Your task to perform on an android device: Go to wifi settings Image 0: 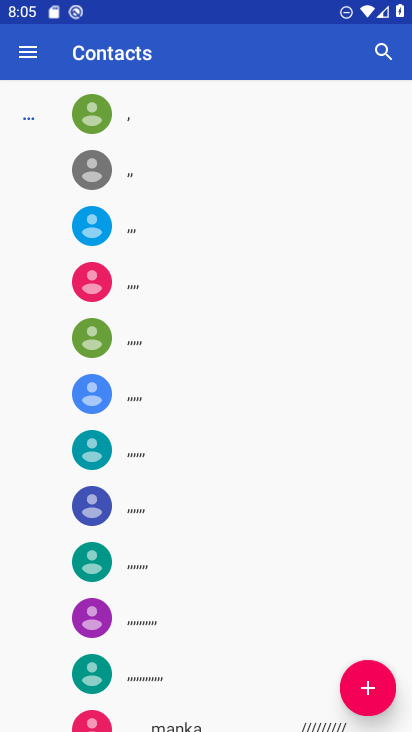
Step 0: press home button
Your task to perform on an android device: Go to wifi settings Image 1: 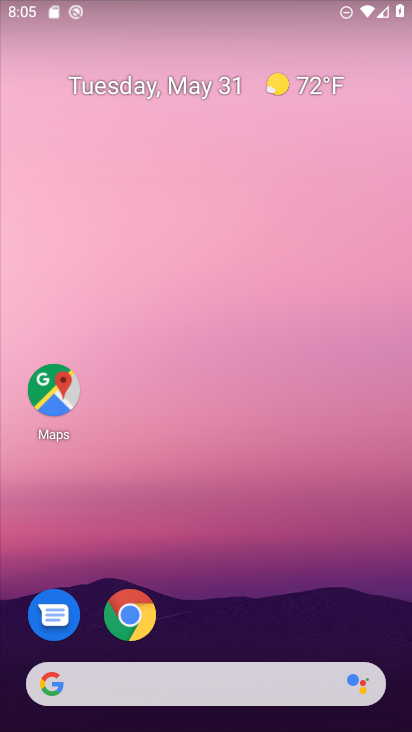
Step 1: drag from (226, 625) to (223, 0)
Your task to perform on an android device: Go to wifi settings Image 2: 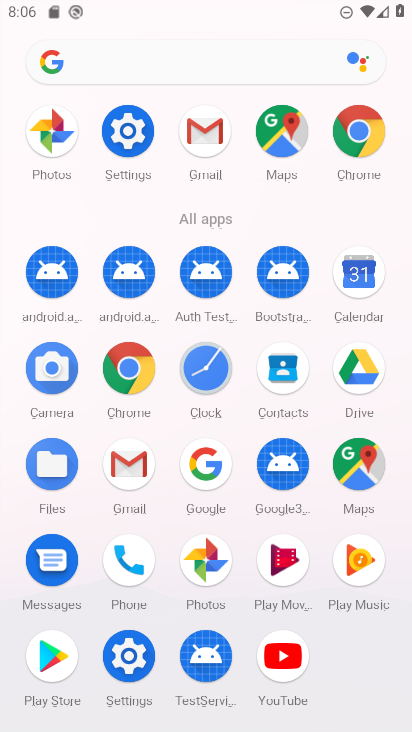
Step 2: click (115, 656)
Your task to perform on an android device: Go to wifi settings Image 3: 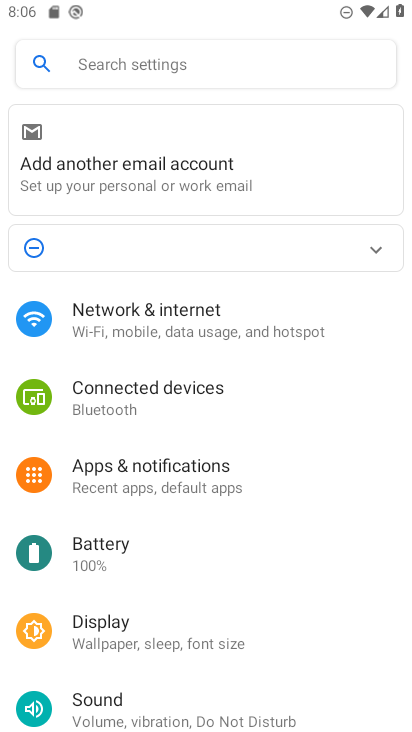
Step 3: click (181, 310)
Your task to perform on an android device: Go to wifi settings Image 4: 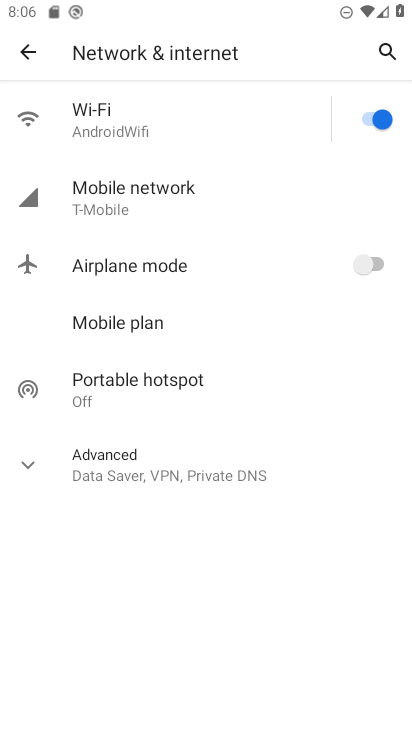
Step 4: click (78, 111)
Your task to perform on an android device: Go to wifi settings Image 5: 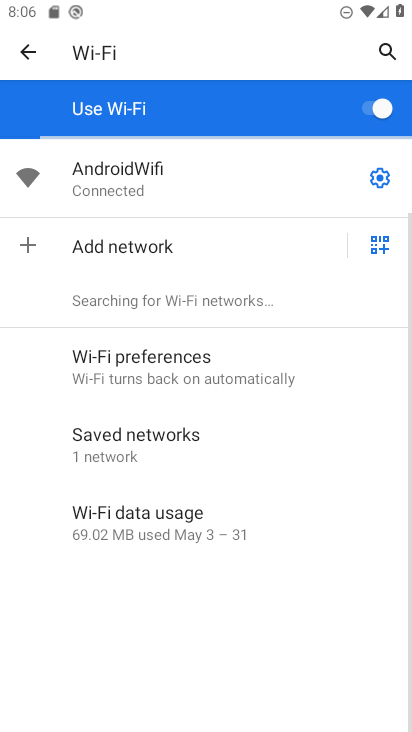
Step 5: task complete